Your task to perform on an android device: When is my next meeting? Image 0: 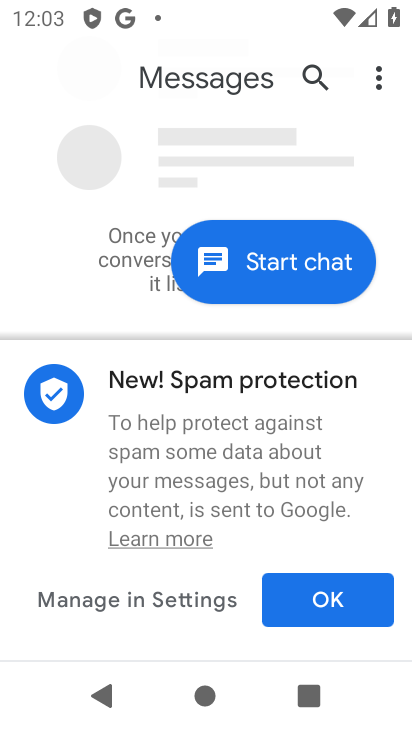
Step 0: press back button
Your task to perform on an android device: When is my next meeting? Image 1: 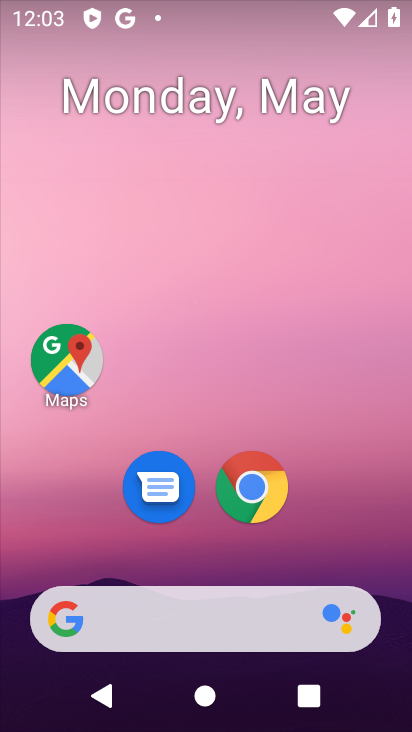
Step 1: drag from (335, 539) to (266, 88)
Your task to perform on an android device: When is my next meeting? Image 2: 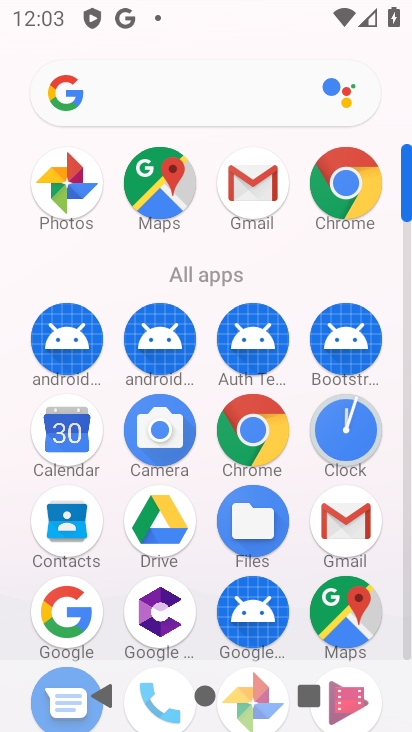
Step 2: click (69, 432)
Your task to perform on an android device: When is my next meeting? Image 3: 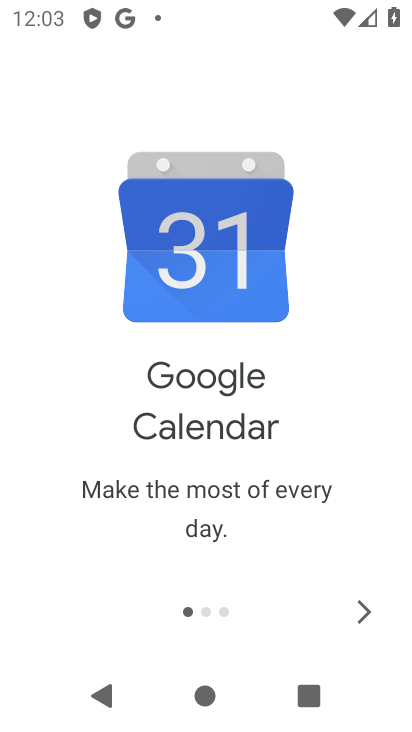
Step 3: click (361, 602)
Your task to perform on an android device: When is my next meeting? Image 4: 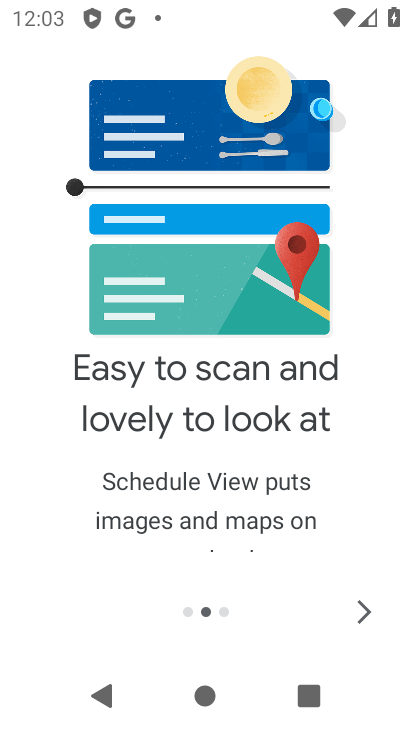
Step 4: click (361, 602)
Your task to perform on an android device: When is my next meeting? Image 5: 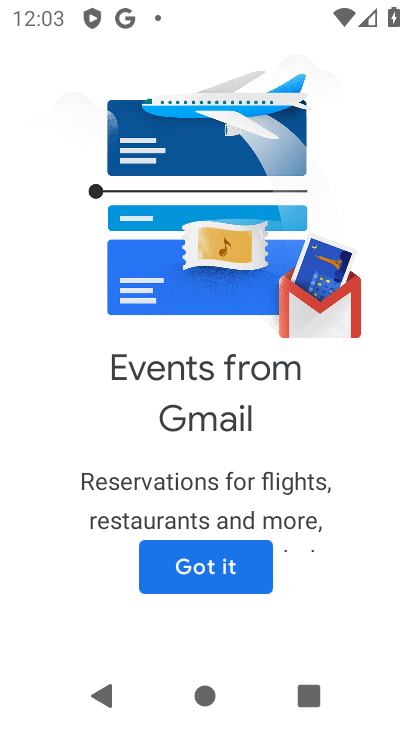
Step 5: click (162, 566)
Your task to perform on an android device: When is my next meeting? Image 6: 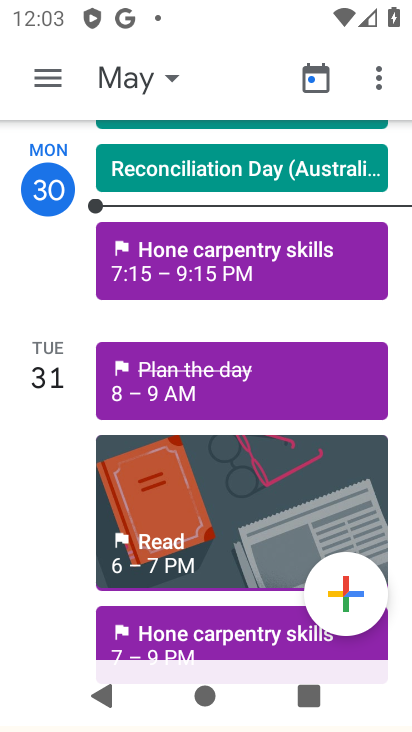
Step 6: click (169, 82)
Your task to perform on an android device: When is my next meeting? Image 7: 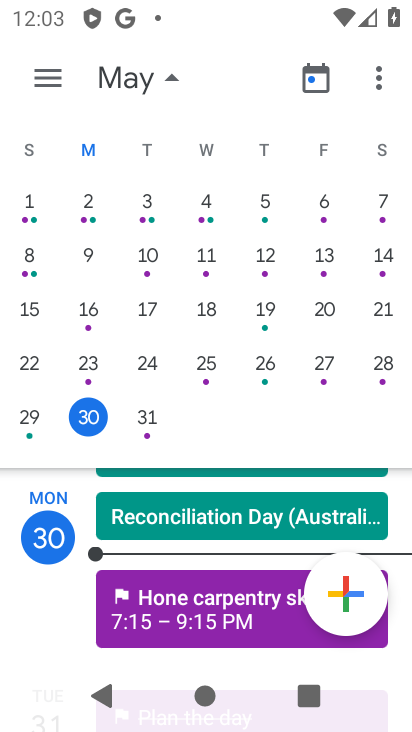
Step 7: click (149, 411)
Your task to perform on an android device: When is my next meeting? Image 8: 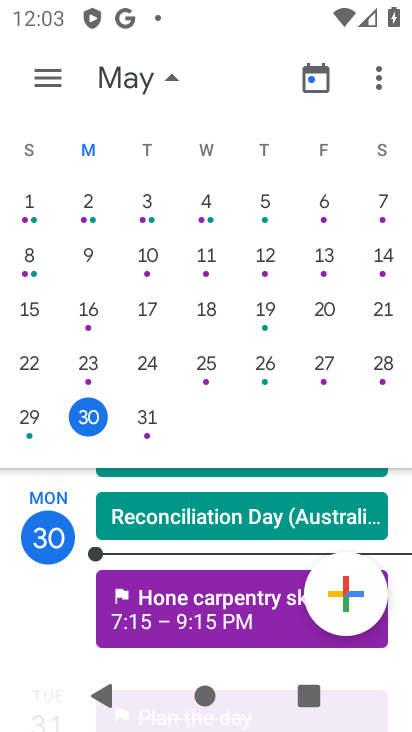
Step 8: click (151, 417)
Your task to perform on an android device: When is my next meeting? Image 9: 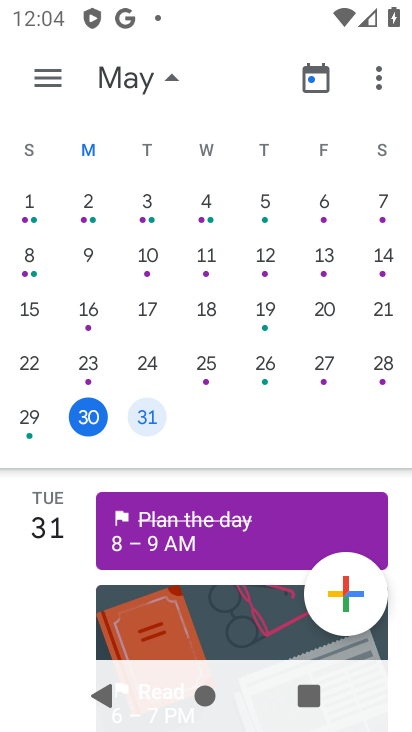
Step 9: click (56, 70)
Your task to perform on an android device: When is my next meeting? Image 10: 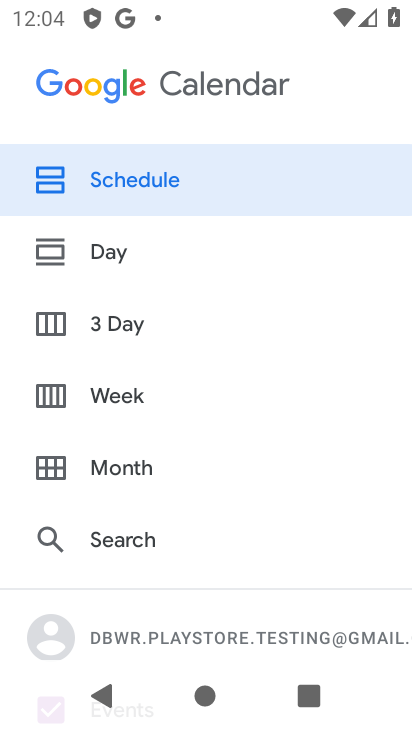
Step 10: click (86, 186)
Your task to perform on an android device: When is my next meeting? Image 11: 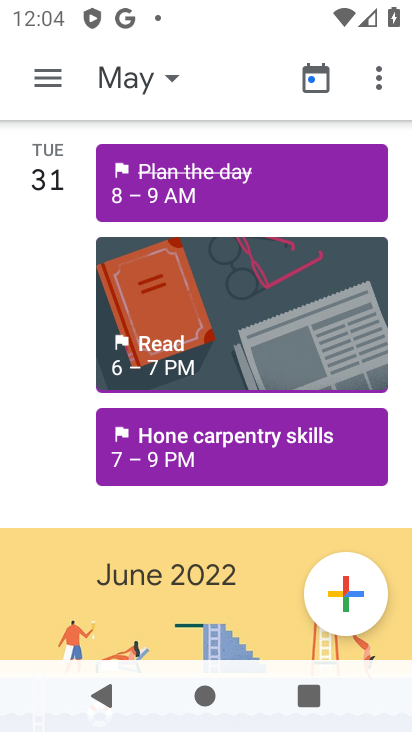
Step 11: task complete